Your task to perform on an android device: Open notification settings Image 0: 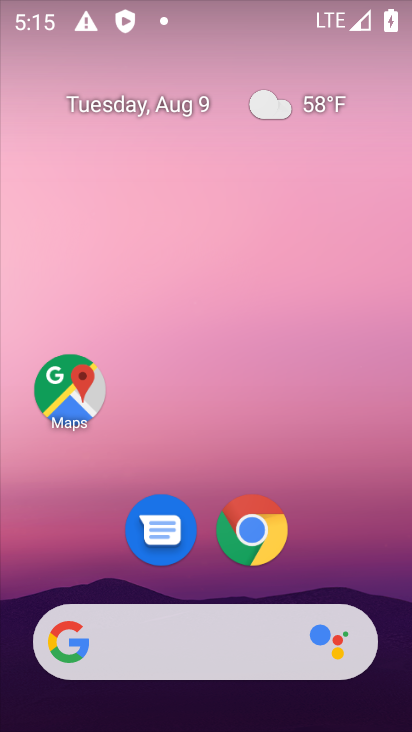
Step 0: drag from (228, 506) to (229, 334)
Your task to perform on an android device: Open notification settings Image 1: 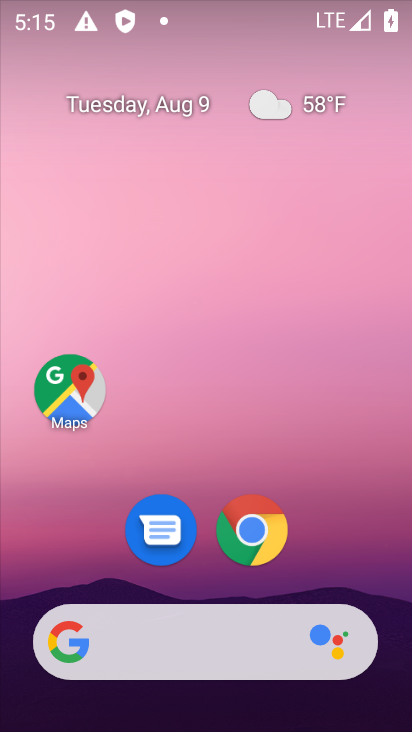
Step 1: drag from (155, 718) to (401, 33)
Your task to perform on an android device: Open notification settings Image 2: 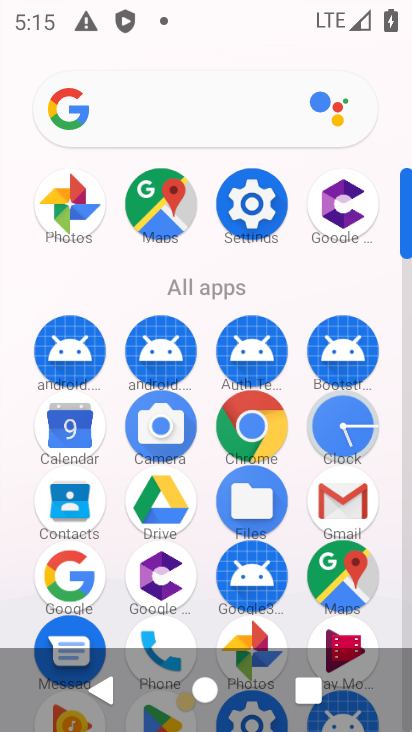
Step 2: click (224, 203)
Your task to perform on an android device: Open notification settings Image 3: 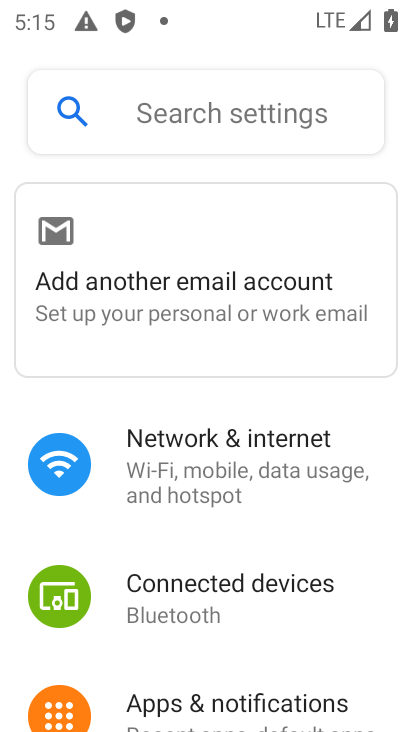
Step 3: click (237, 731)
Your task to perform on an android device: Open notification settings Image 4: 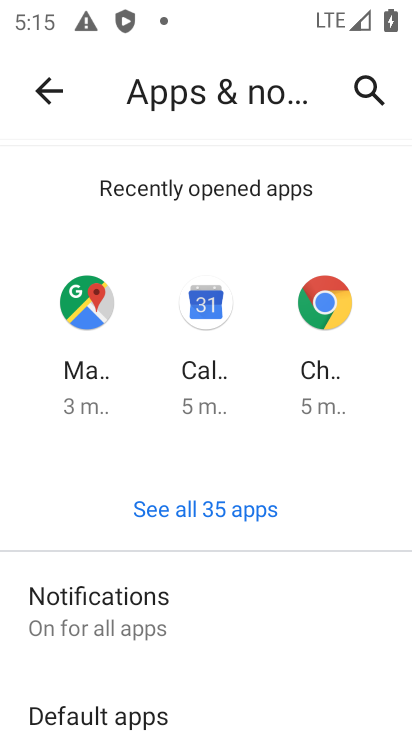
Step 4: task complete